Your task to perform on an android device: Find coffee shops on Maps Image 0: 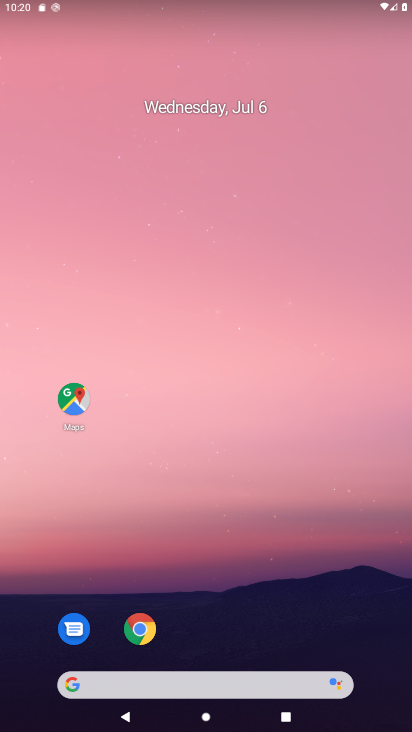
Step 0: drag from (180, 657) to (283, 101)
Your task to perform on an android device: Find coffee shops on Maps Image 1: 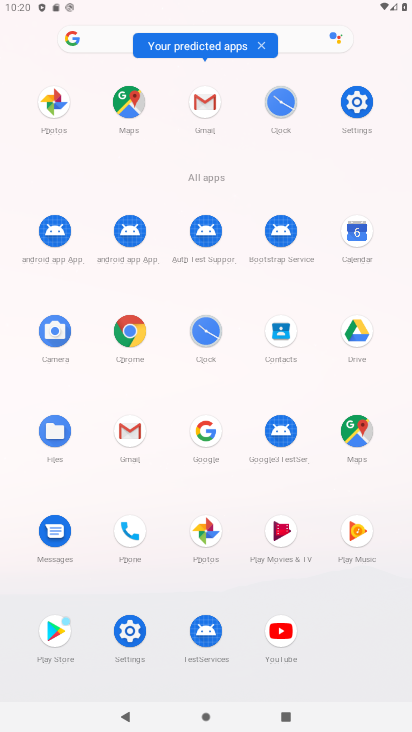
Step 1: click (347, 441)
Your task to perform on an android device: Find coffee shops on Maps Image 2: 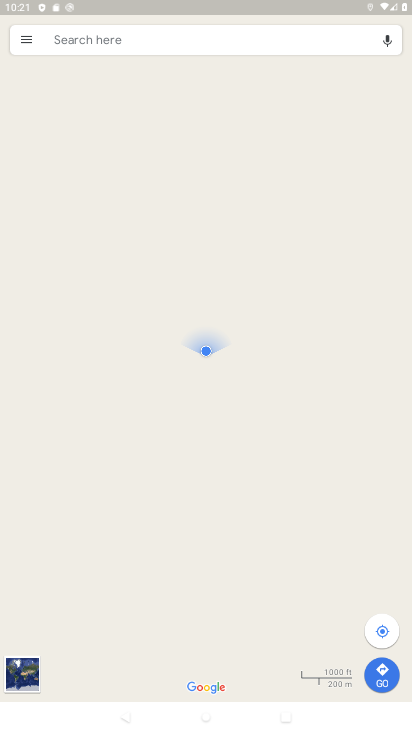
Step 2: click (172, 46)
Your task to perform on an android device: Find coffee shops on Maps Image 3: 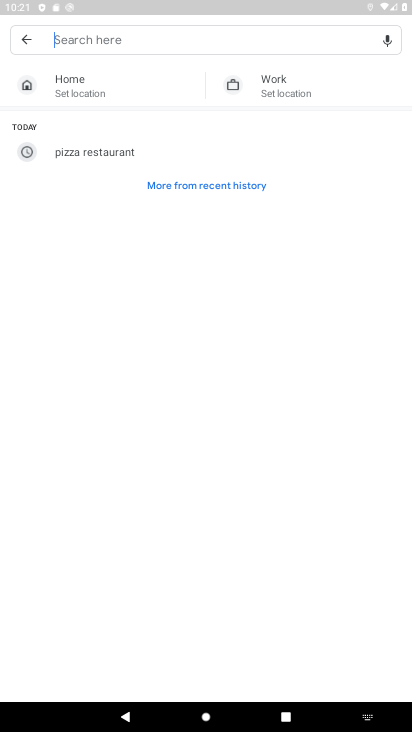
Step 3: type "Coffee shops"
Your task to perform on an android device: Find coffee shops on Maps Image 4: 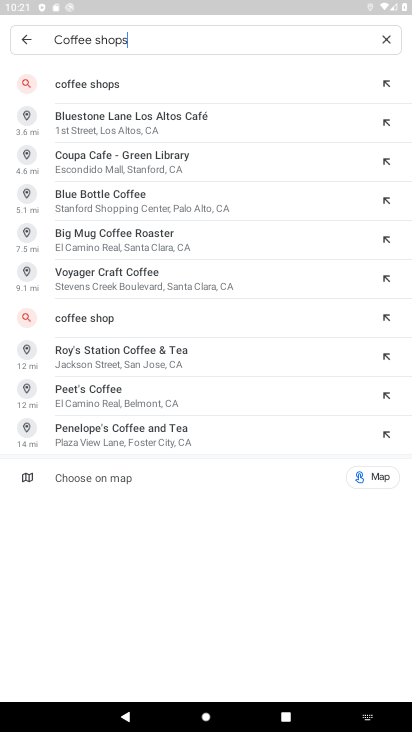
Step 4: click (122, 76)
Your task to perform on an android device: Find coffee shops on Maps Image 5: 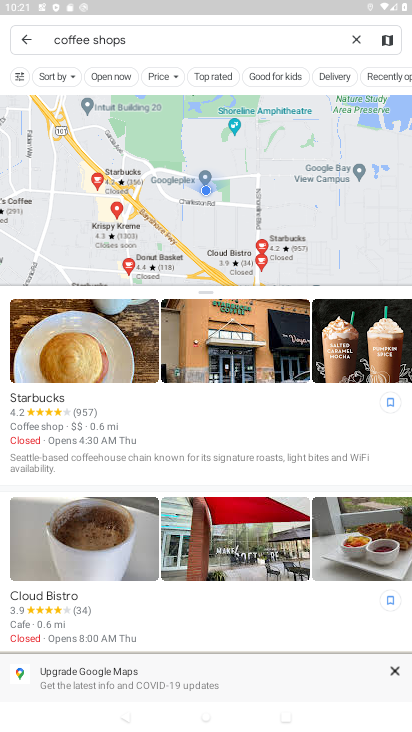
Step 5: task complete